Your task to perform on an android device: change your default location settings in chrome Image 0: 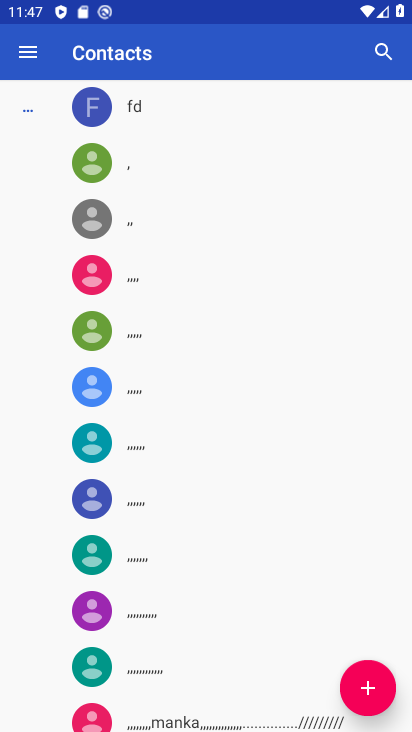
Step 0: press back button
Your task to perform on an android device: change your default location settings in chrome Image 1: 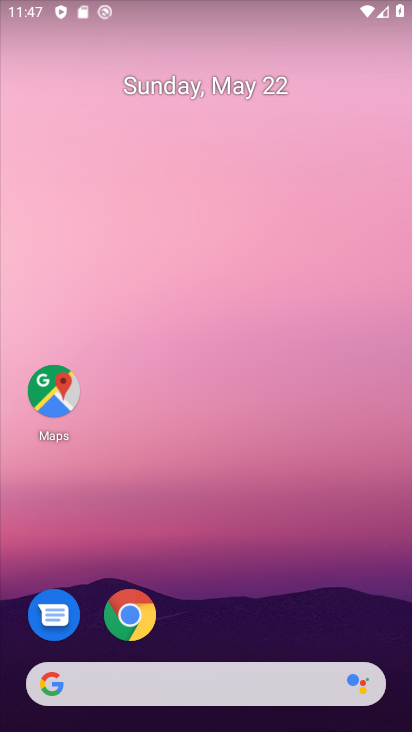
Step 1: drag from (140, 572) to (218, 92)
Your task to perform on an android device: change your default location settings in chrome Image 2: 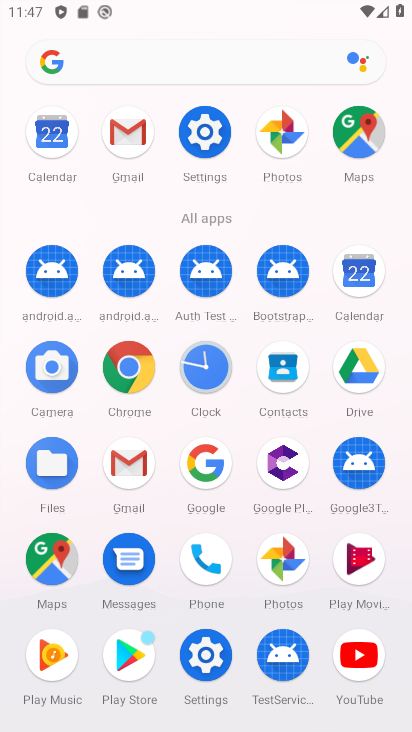
Step 2: click (125, 368)
Your task to perform on an android device: change your default location settings in chrome Image 3: 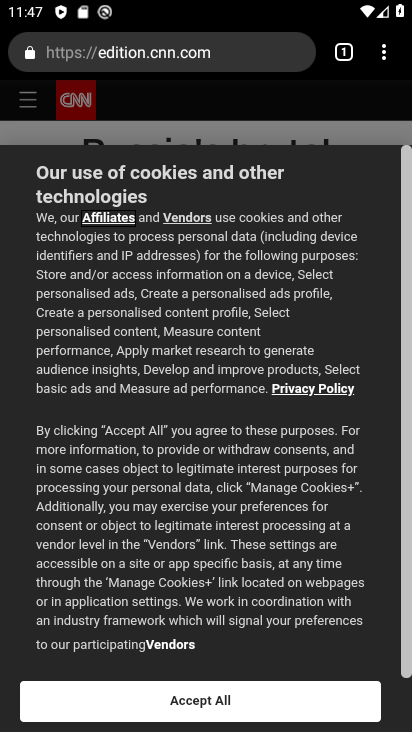
Step 3: drag from (382, 44) to (216, 570)
Your task to perform on an android device: change your default location settings in chrome Image 4: 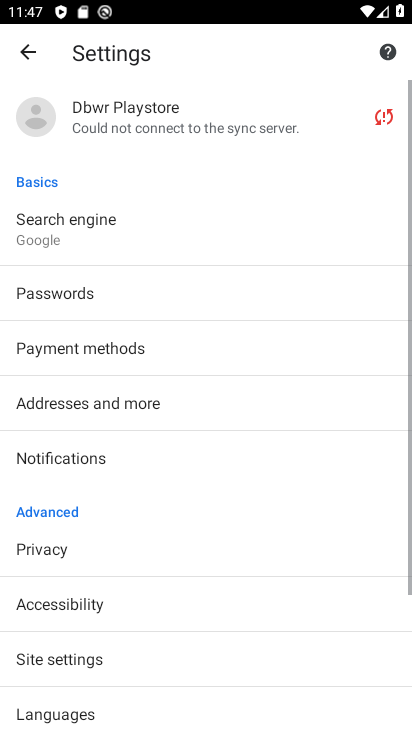
Step 4: drag from (150, 594) to (221, 238)
Your task to perform on an android device: change your default location settings in chrome Image 5: 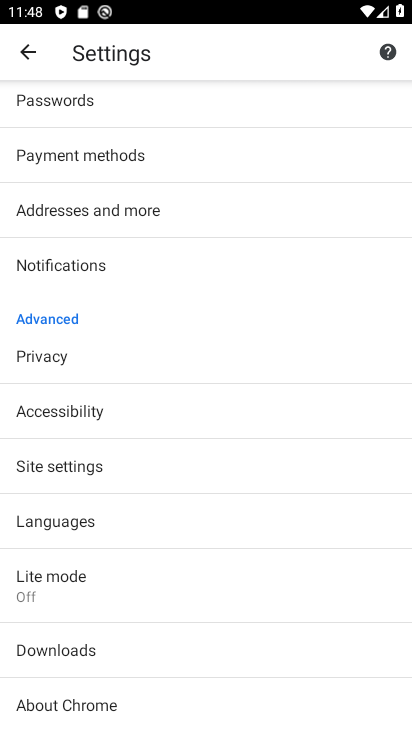
Step 5: click (59, 462)
Your task to perform on an android device: change your default location settings in chrome Image 6: 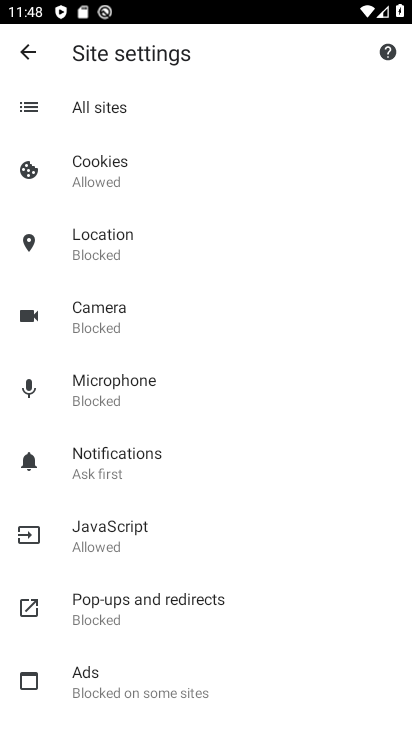
Step 6: click (139, 239)
Your task to perform on an android device: change your default location settings in chrome Image 7: 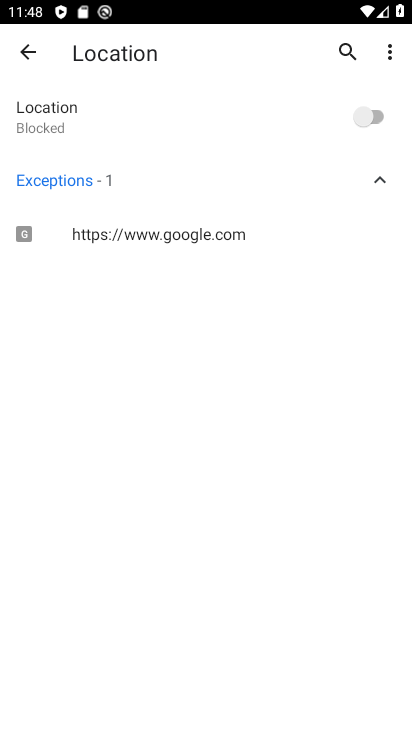
Step 7: click (240, 234)
Your task to perform on an android device: change your default location settings in chrome Image 8: 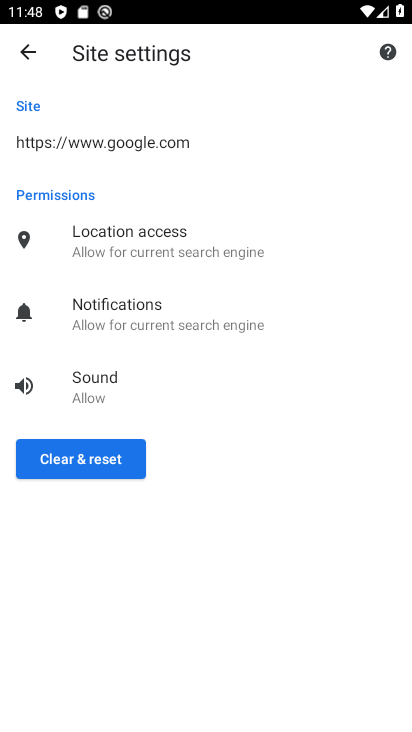
Step 8: click (132, 229)
Your task to perform on an android device: change your default location settings in chrome Image 9: 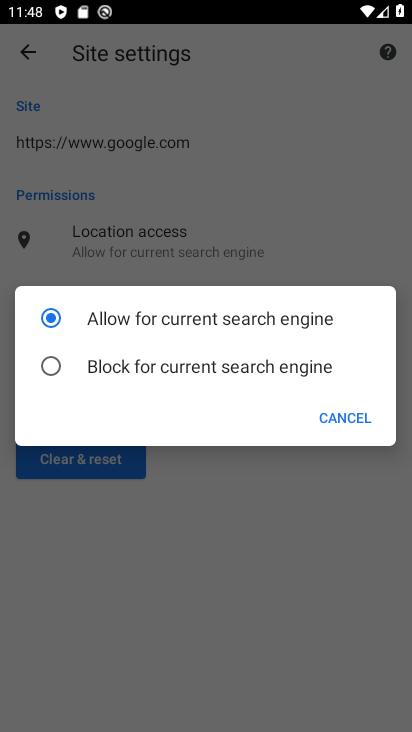
Step 9: click (150, 362)
Your task to perform on an android device: change your default location settings in chrome Image 10: 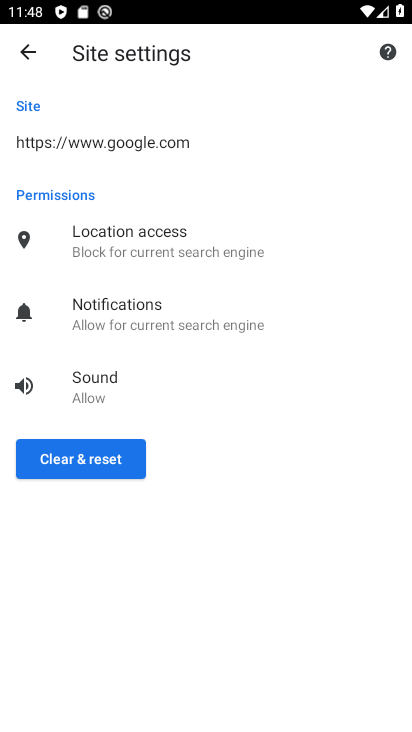
Step 10: task complete